Your task to perform on an android device: Go to battery settings Image 0: 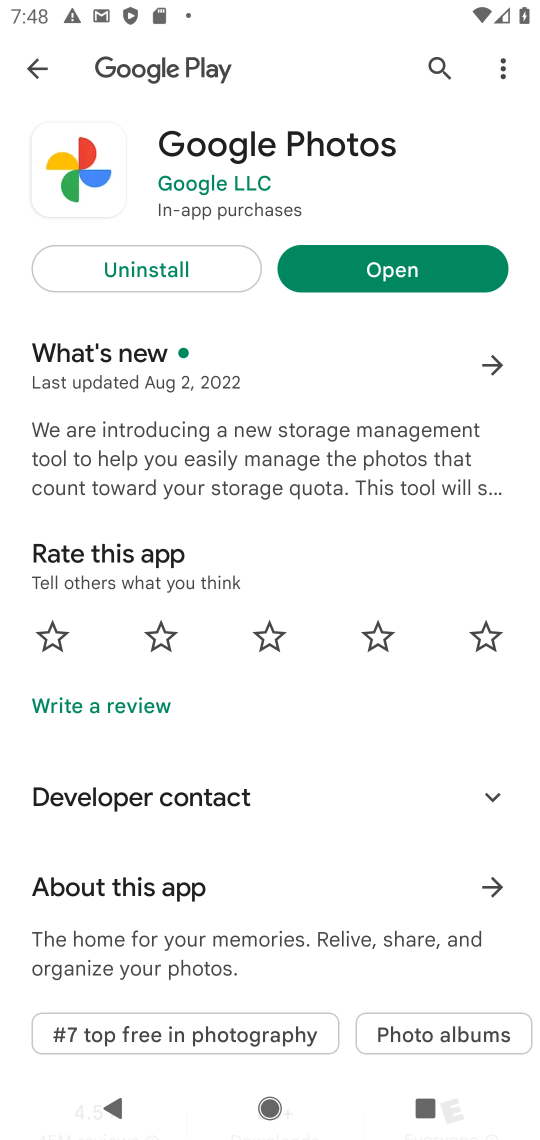
Step 0: press home button
Your task to perform on an android device: Go to battery settings Image 1: 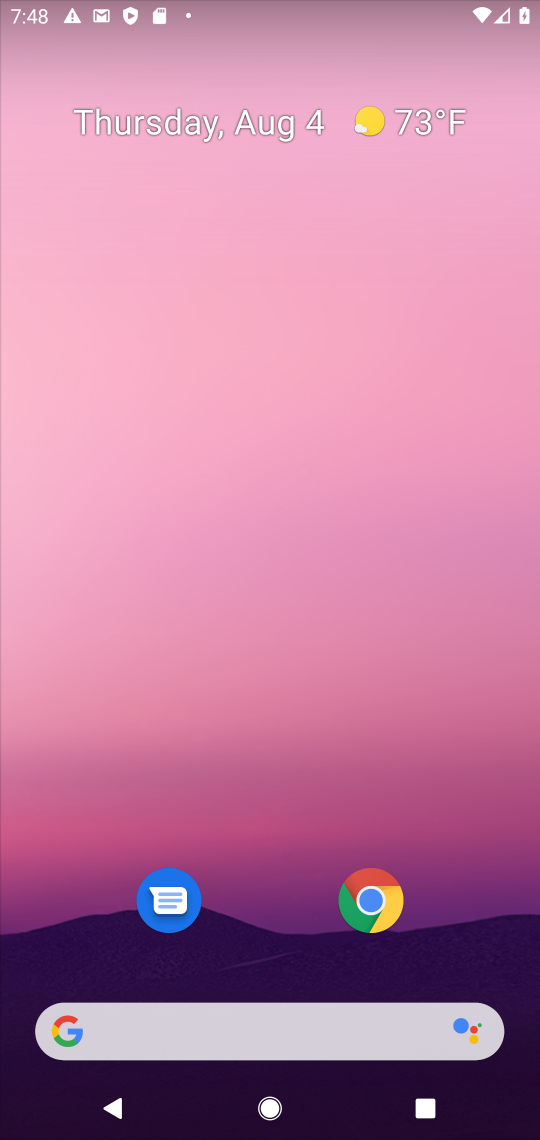
Step 1: drag from (278, 990) to (382, 49)
Your task to perform on an android device: Go to battery settings Image 2: 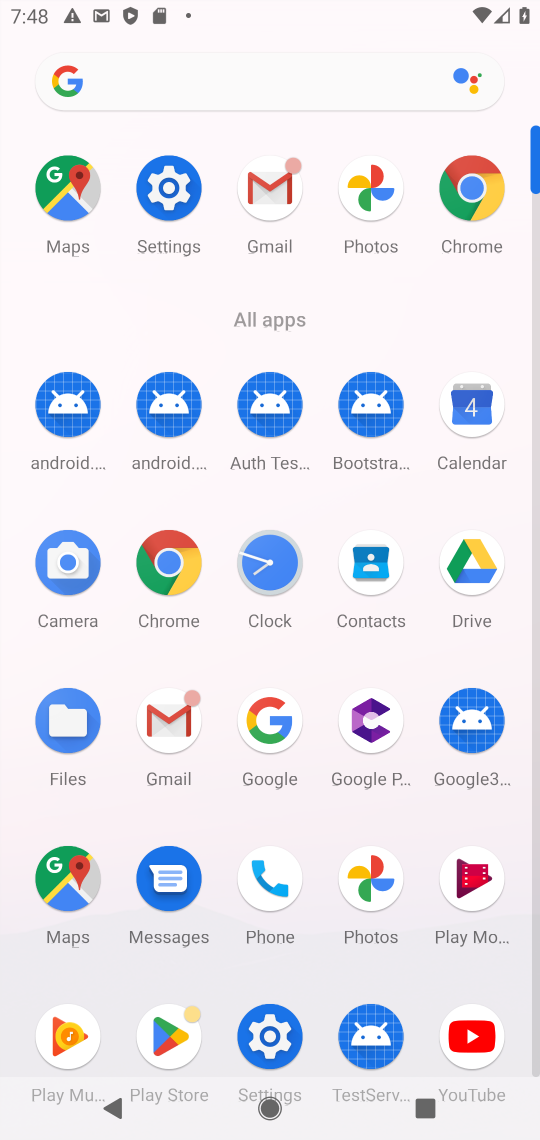
Step 2: drag from (173, 180) to (354, 700)
Your task to perform on an android device: Go to battery settings Image 3: 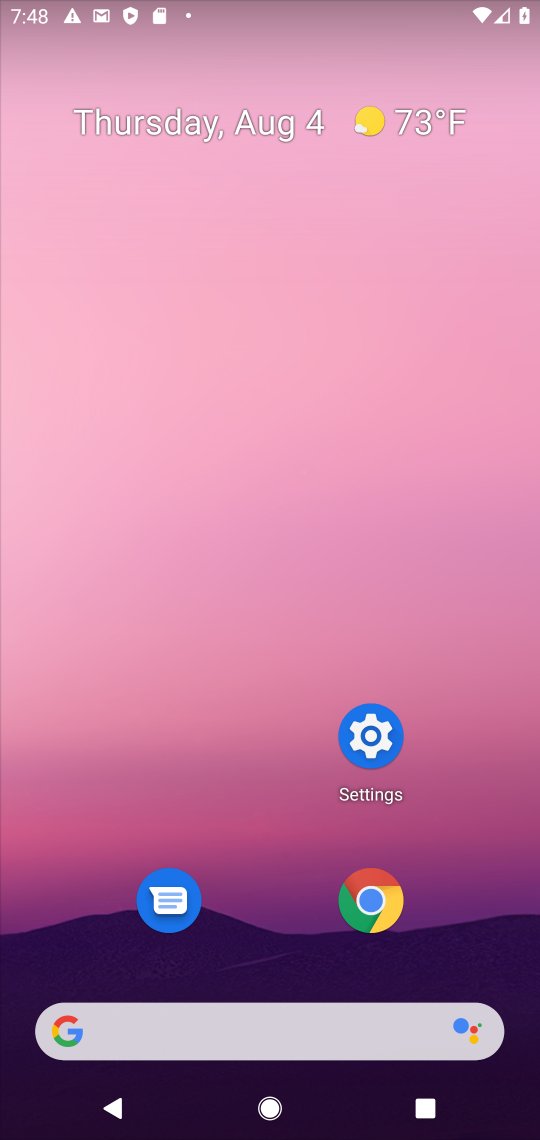
Step 3: click (391, 740)
Your task to perform on an android device: Go to battery settings Image 4: 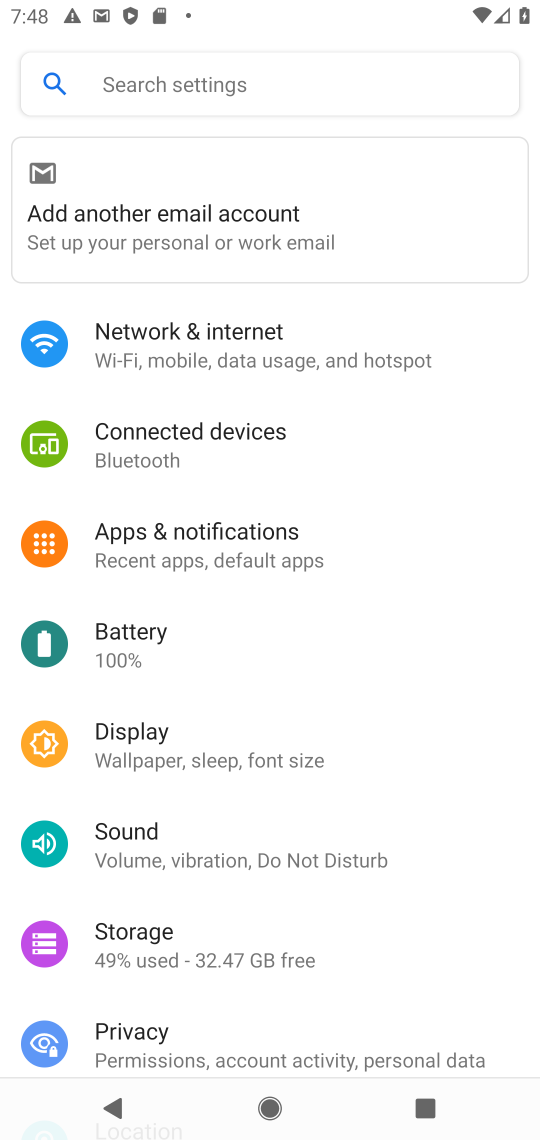
Step 4: click (151, 637)
Your task to perform on an android device: Go to battery settings Image 5: 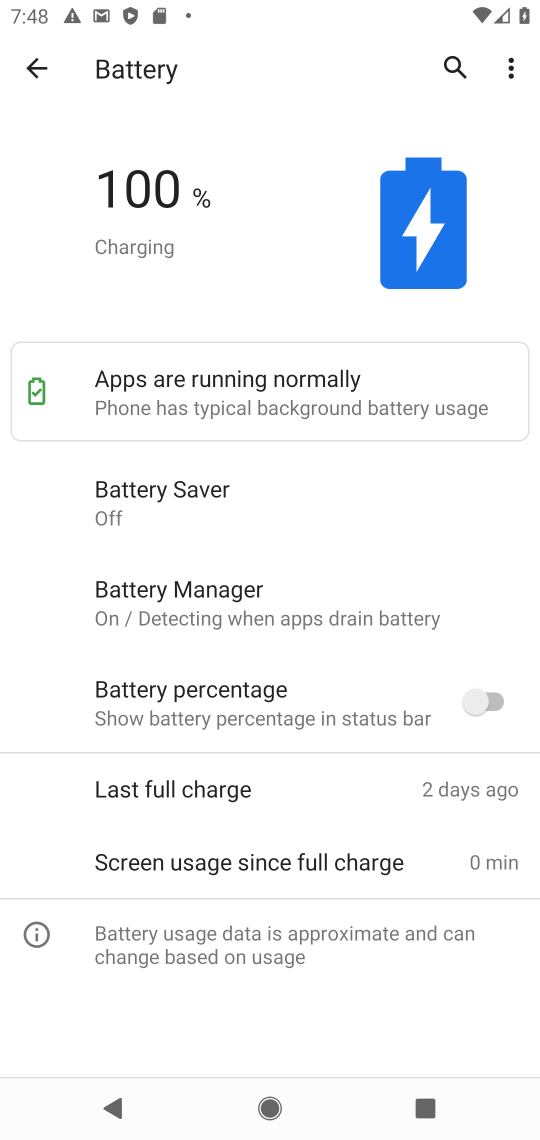
Step 5: task complete